Your task to perform on an android device: What's the weather? Image 0: 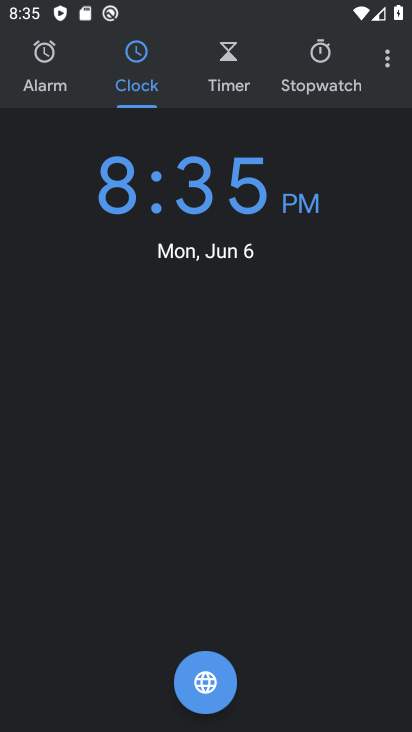
Step 0: press home button
Your task to perform on an android device: What's the weather? Image 1: 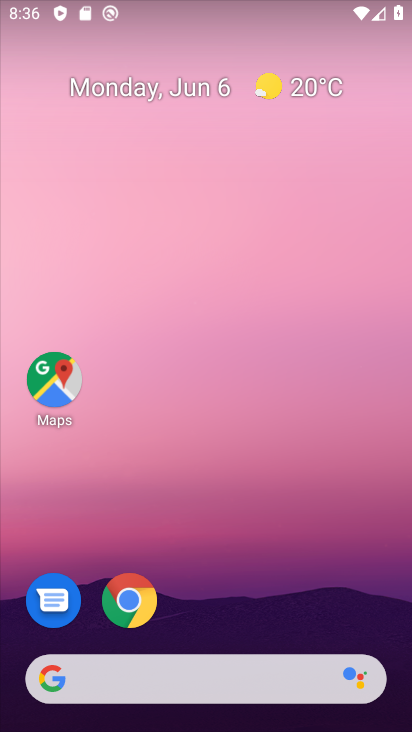
Step 1: click (215, 702)
Your task to perform on an android device: What's the weather? Image 2: 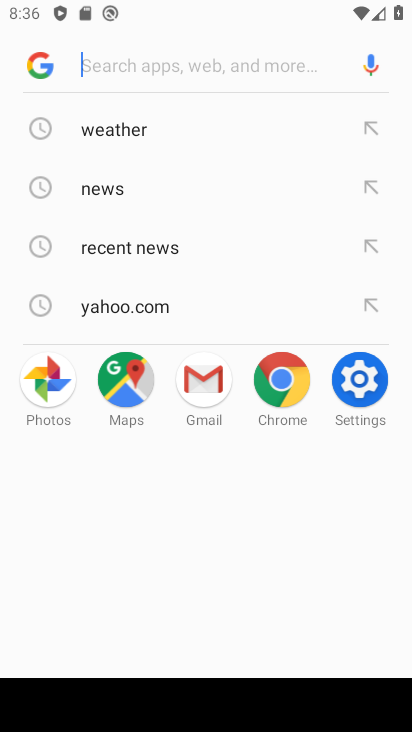
Step 2: click (110, 127)
Your task to perform on an android device: What's the weather? Image 3: 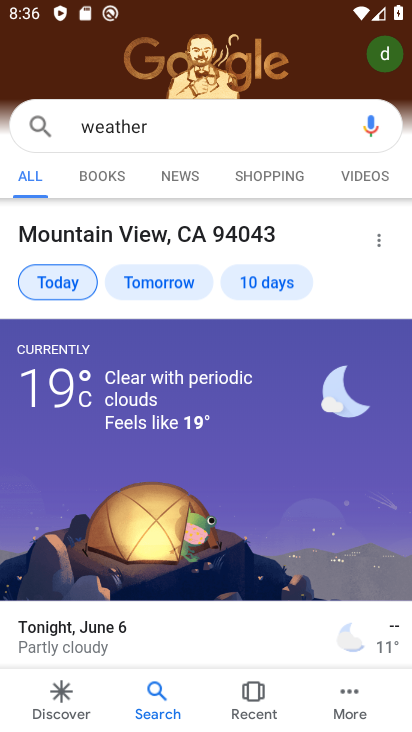
Step 3: task complete